Your task to perform on an android device: turn on sleep mode Image 0: 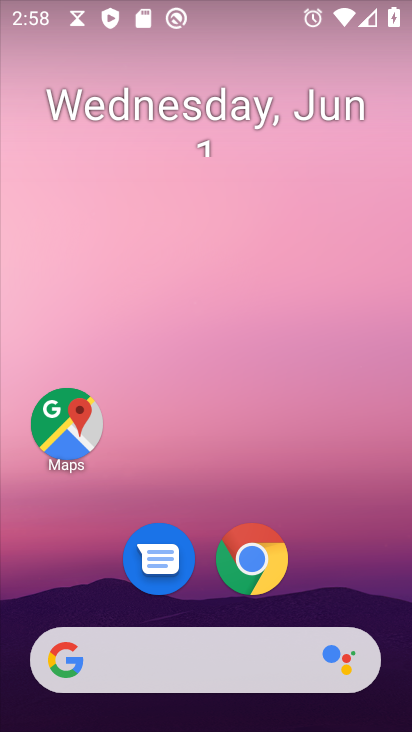
Step 0: drag from (302, 595) to (308, 28)
Your task to perform on an android device: turn on sleep mode Image 1: 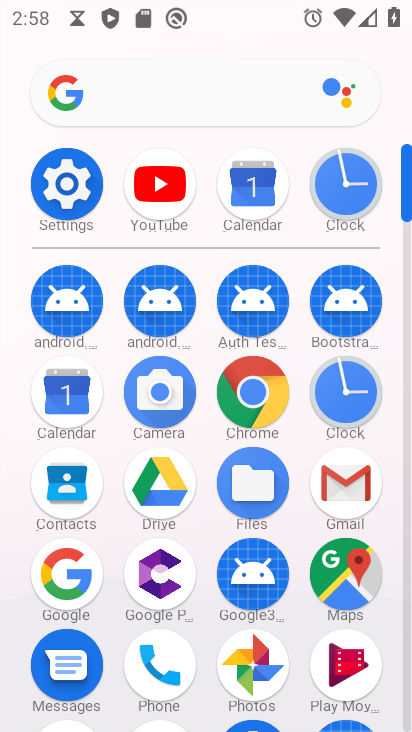
Step 1: click (68, 189)
Your task to perform on an android device: turn on sleep mode Image 2: 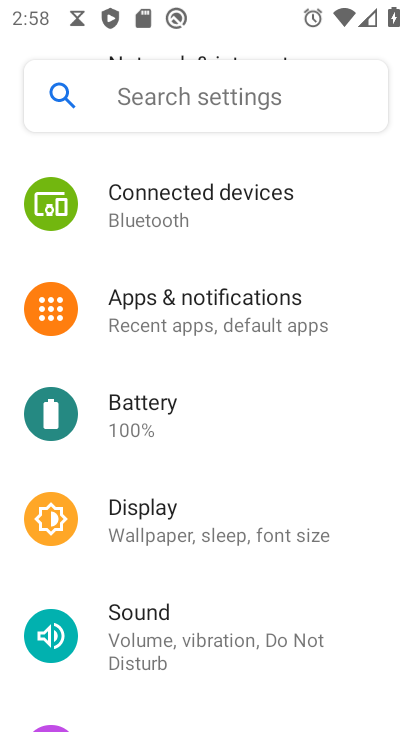
Step 2: click (188, 535)
Your task to perform on an android device: turn on sleep mode Image 3: 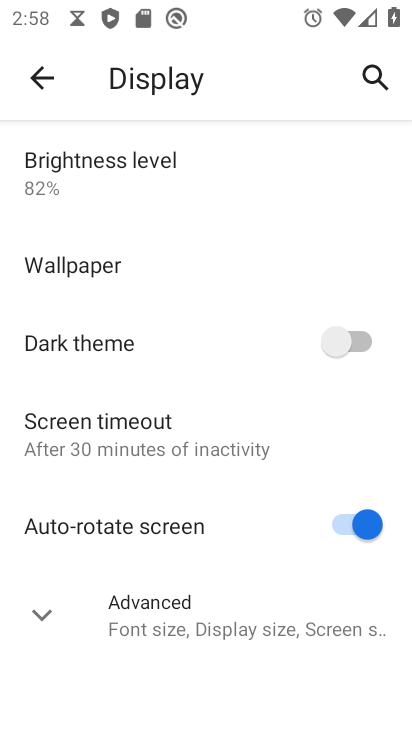
Step 3: click (234, 634)
Your task to perform on an android device: turn on sleep mode Image 4: 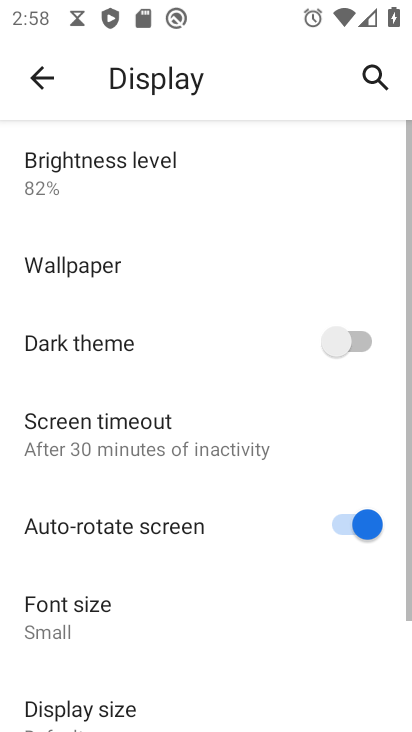
Step 4: drag from (219, 632) to (252, 104)
Your task to perform on an android device: turn on sleep mode Image 5: 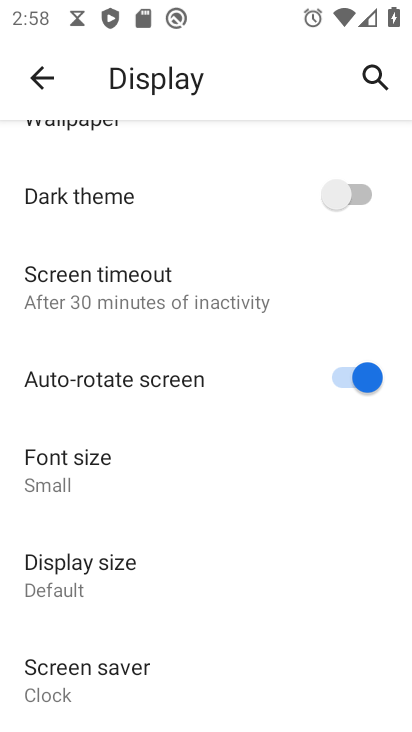
Step 5: click (40, 90)
Your task to perform on an android device: turn on sleep mode Image 6: 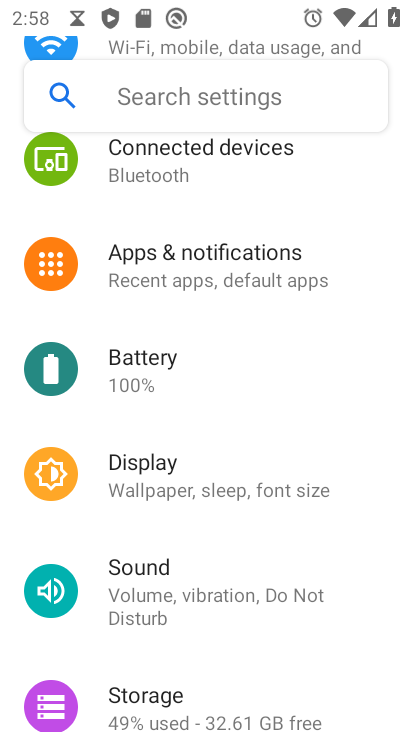
Step 6: task complete